Your task to perform on an android device: turn on sleep mode Image 0: 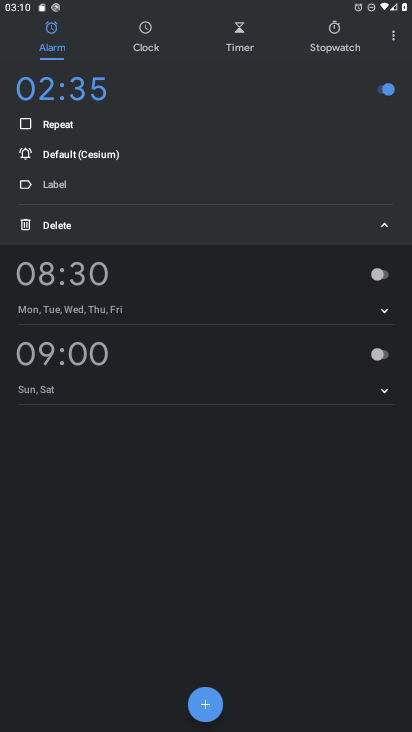
Step 0: press home button
Your task to perform on an android device: turn on sleep mode Image 1: 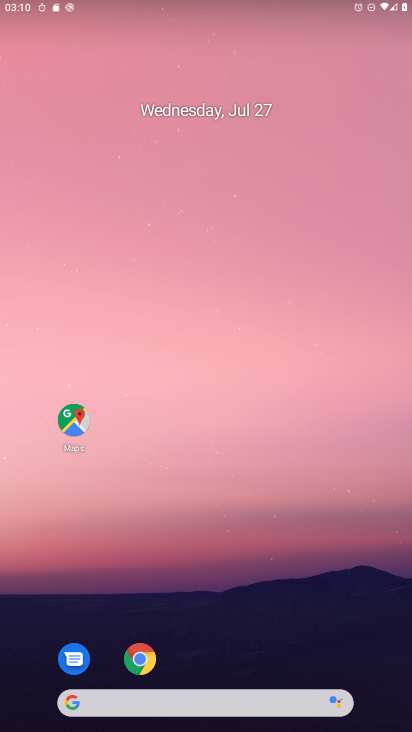
Step 1: drag from (310, 644) to (293, 3)
Your task to perform on an android device: turn on sleep mode Image 2: 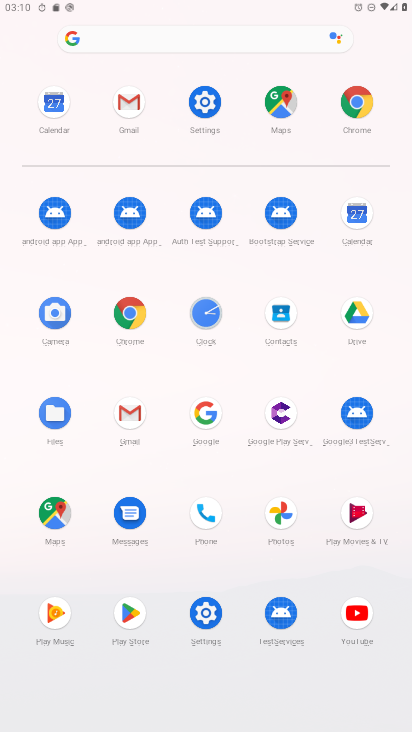
Step 2: click (206, 103)
Your task to perform on an android device: turn on sleep mode Image 3: 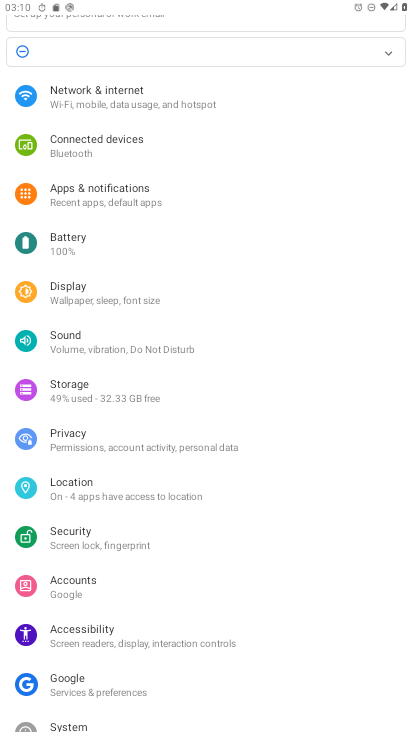
Step 3: click (62, 296)
Your task to perform on an android device: turn on sleep mode Image 4: 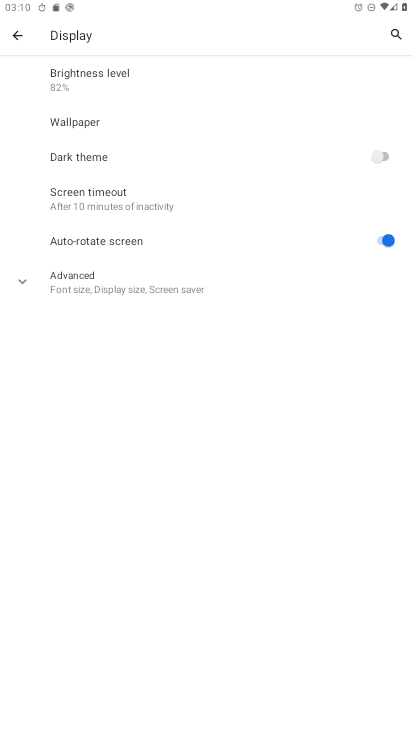
Step 4: click (170, 209)
Your task to perform on an android device: turn on sleep mode Image 5: 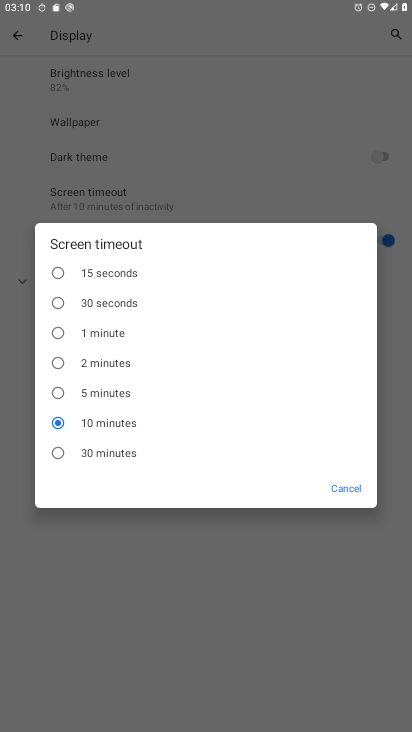
Step 5: task complete